Your task to perform on an android device: What is the recent news? Image 0: 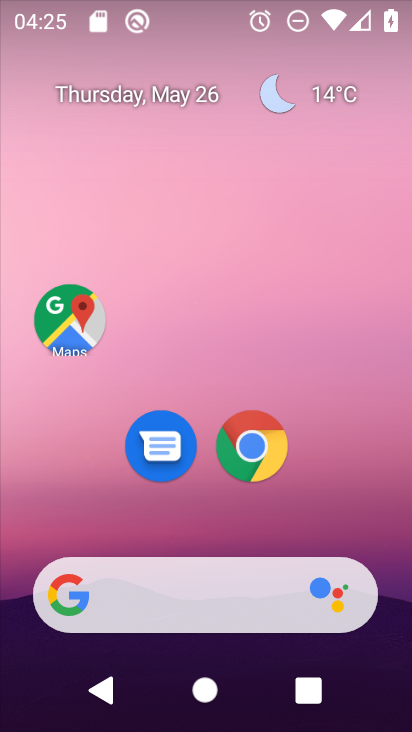
Step 0: click (126, 594)
Your task to perform on an android device: What is the recent news? Image 1: 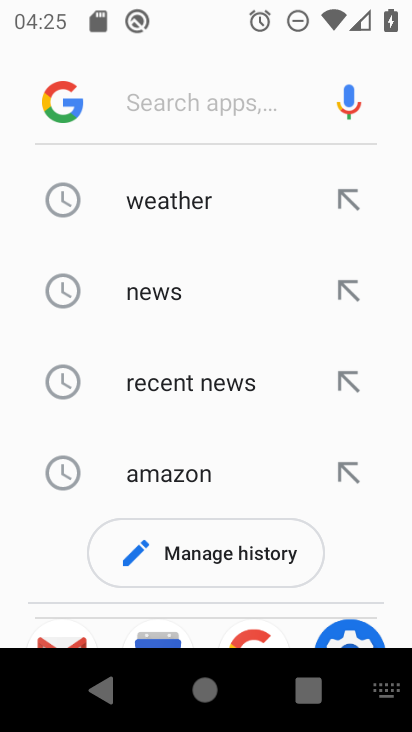
Step 1: click (172, 383)
Your task to perform on an android device: What is the recent news? Image 2: 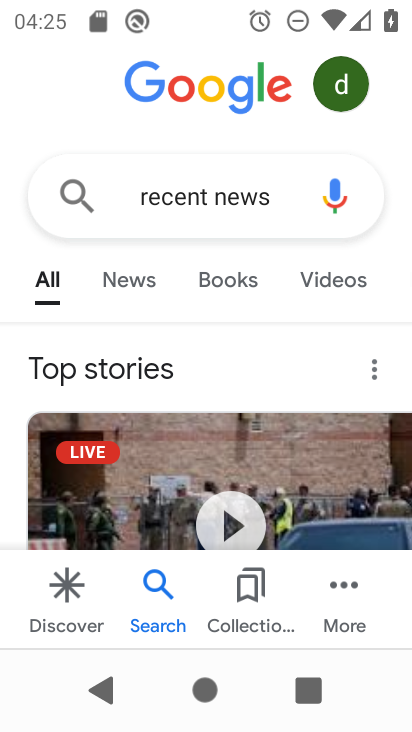
Step 2: click (137, 277)
Your task to perform on an android device: What is the recent news? Image 3: 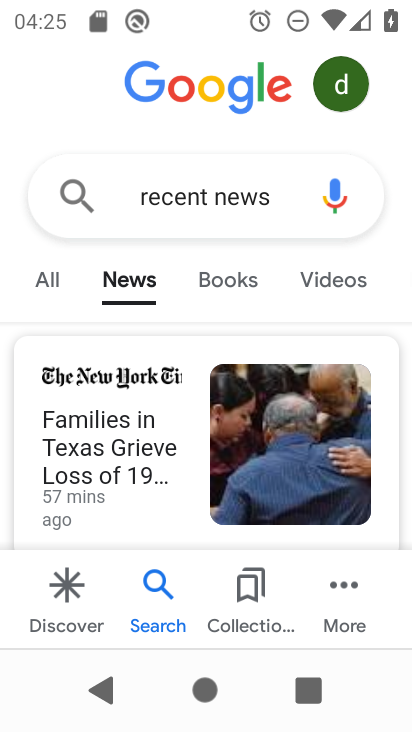
Step 3: click (98, 451)
Your task to perform on an android device: What is the recent news? Image 4: 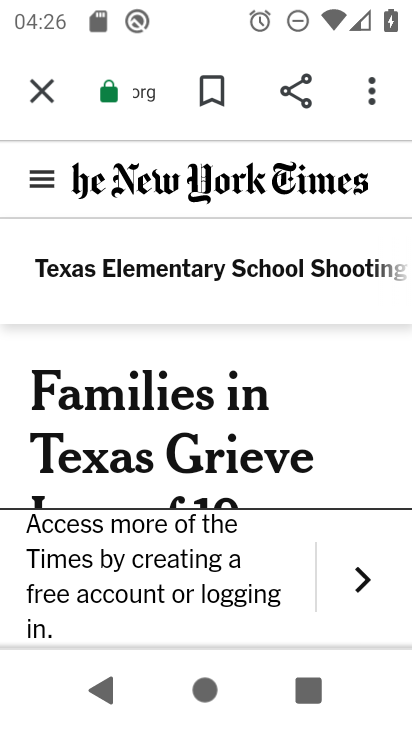
Step 4: task complete